Your task to perform on an android device: turn on improve location accuracy Image 0: 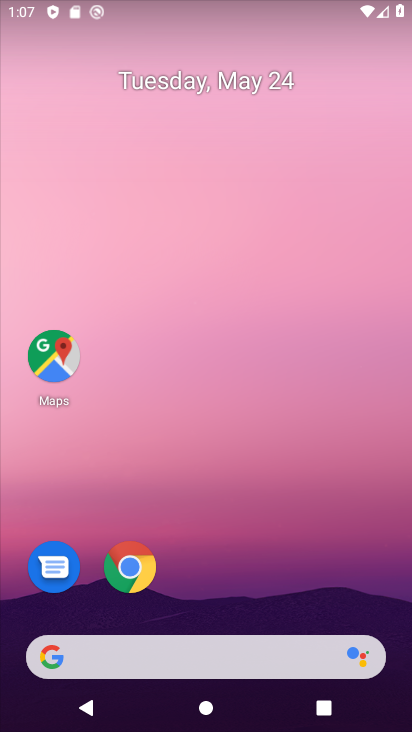
Step 0: drag from (217, 613) to (261, 122)
Your task to perform on an android device: turn on improve location accuracy Image 1: 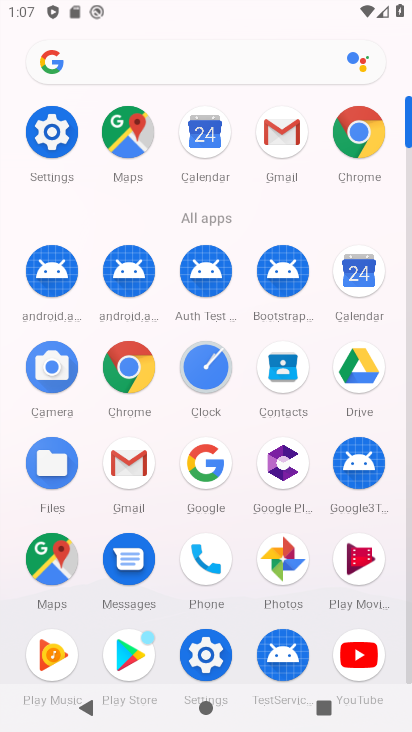
Step 1: click (42, 126)
Your task to perform on an android device: turn on improve location accuracy Image 2: 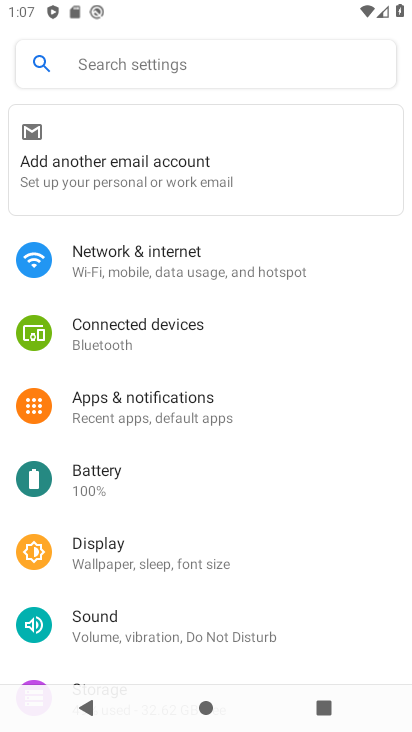
Step 2: drag from (192, 584) to (228, 232)
Your task to perform on an android device: turn on improve location accuracy Image 3: 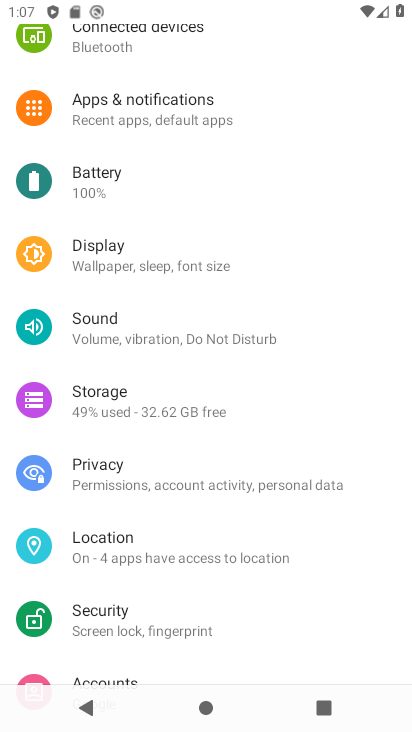
Step 3: drag from (173, 536) to (205, 335)
Your task to perform on an android device: turn on improve location accuracy Image 4: 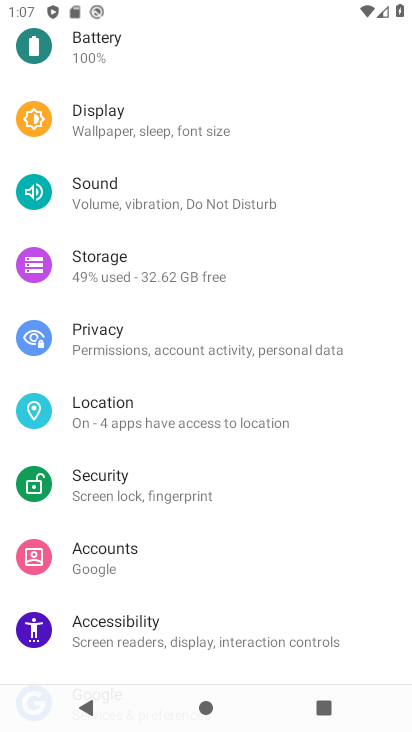
Step 4: click (174, 435)
Your task to perform on an android device: turn on improve location accuracy Image 5: 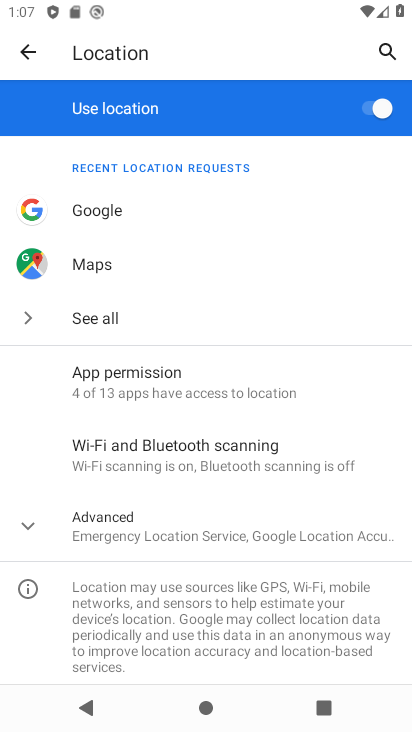
Step 5: click (208, 533)
Your task to perform on an android device: turn on improve location accuracy Image 6: 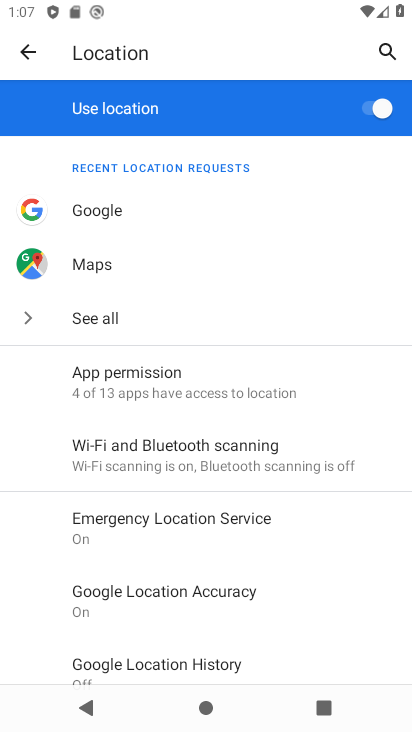
Step 6: click (238, 608)
Your task to perform on an android device: turn on improve location accuracy Image 7: 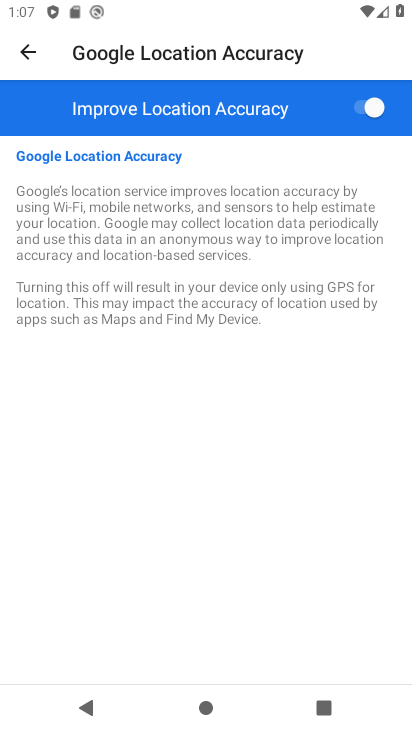
Step 7: task complete